Your task to perform on an android device: Show me the best rated 42 inch TV on Walmart. Image 0: 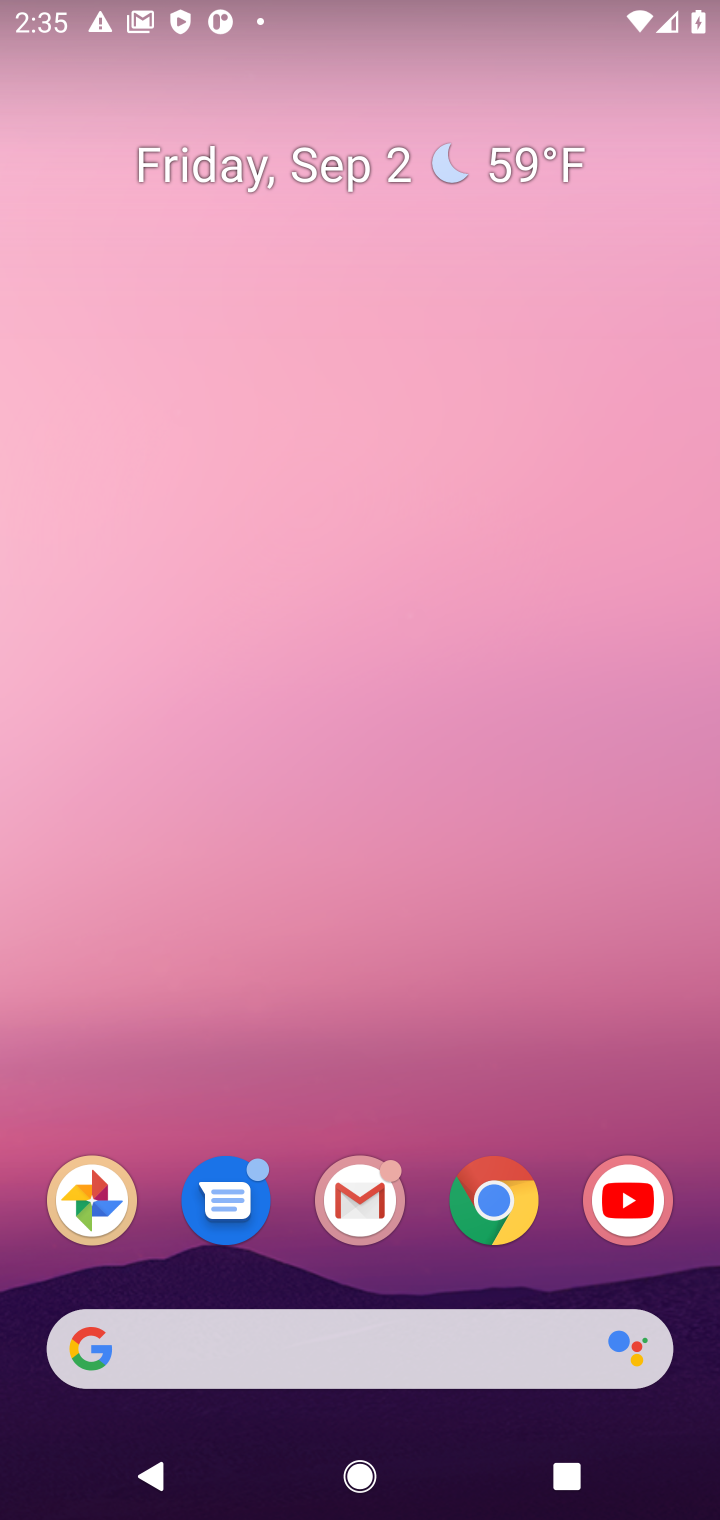
Step 0: click (491, 1202)
Your task to perform on an android device: Show me the best rated 42 inch TV on Walmart. Image 1: 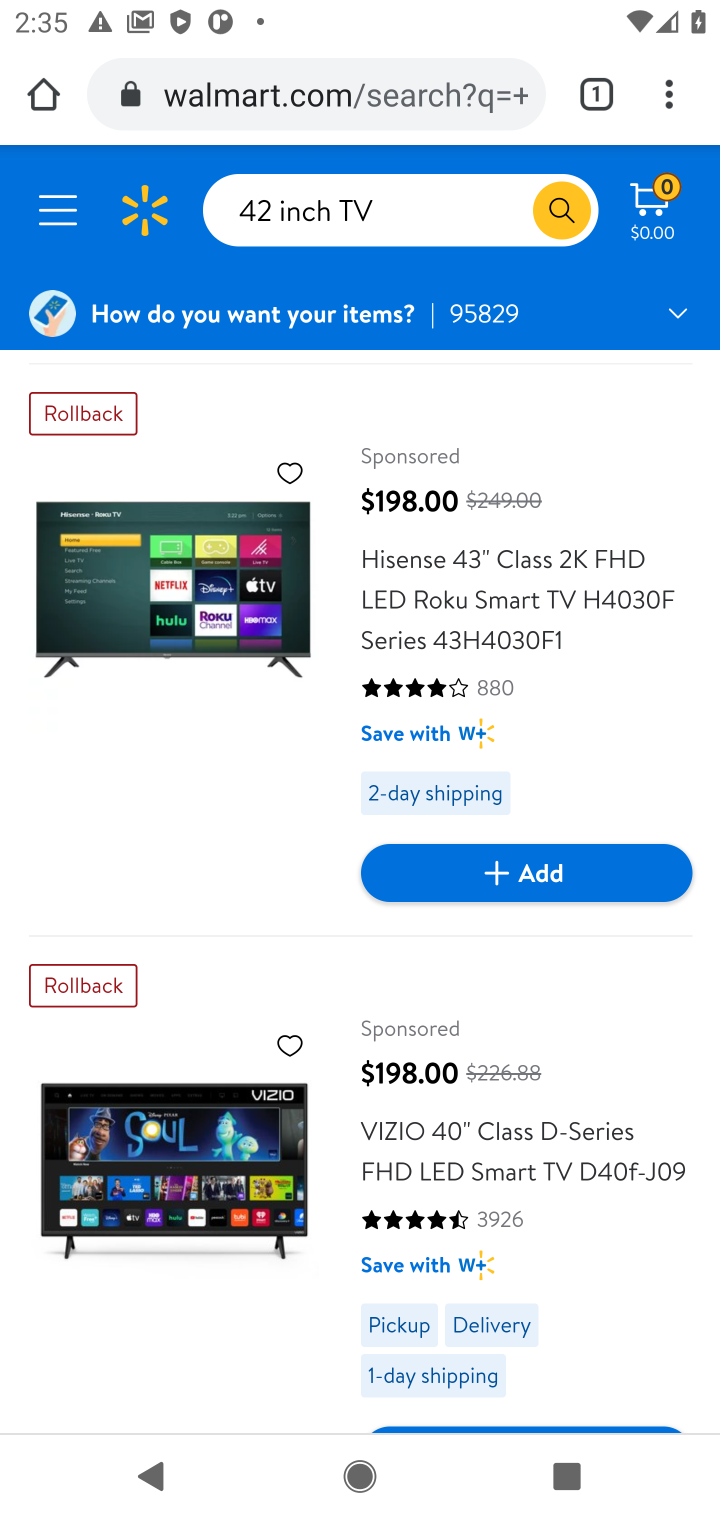
Step 1: task complete